Your task to perform on an android device: turn on bluetooth scan Image 0: 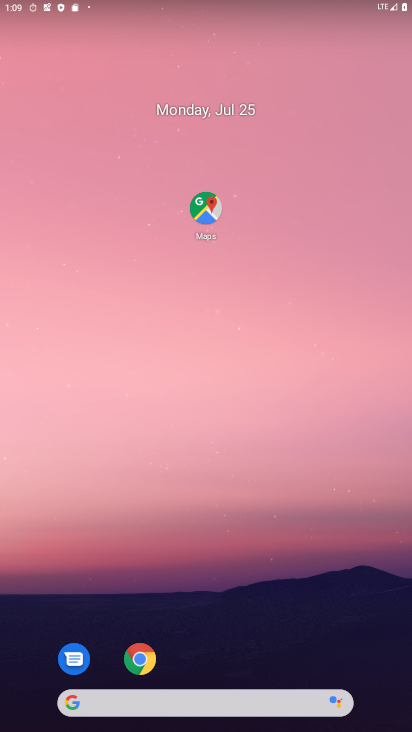
Step 0: drag from (45, 696) to (175, 157)
Your task to perform on an android device: turn on bluetooth scan Image 1: 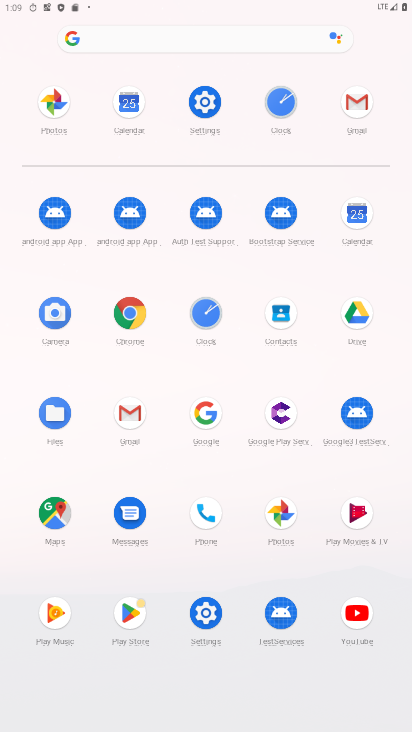
Step 1: click (190, 608)
Your task to perform on an android device: turn on bluetooth scan Image 2: 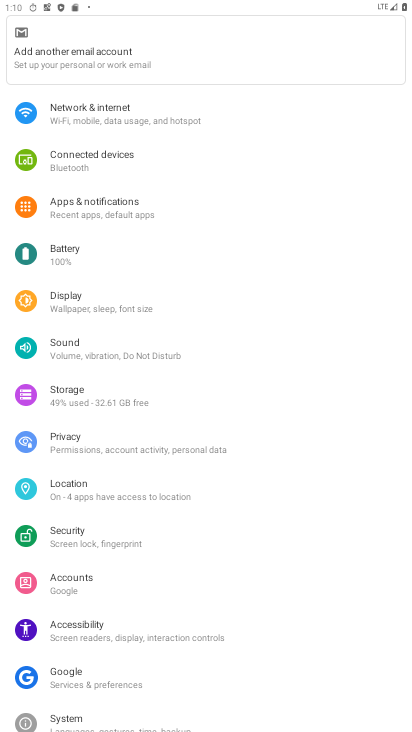
Step 2: click (101, 165)
Your task to perform on an android device: turn on bluetooth scan Image 3: 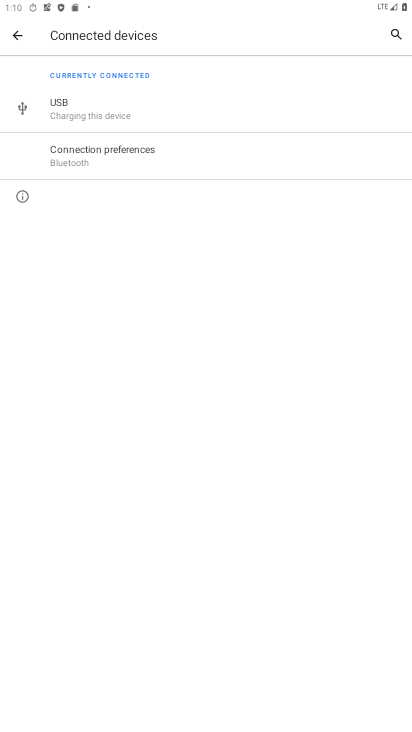
Step 3: click (87, 161)
Your task to perform on an android device: turn on bluetooth scan Image 4: 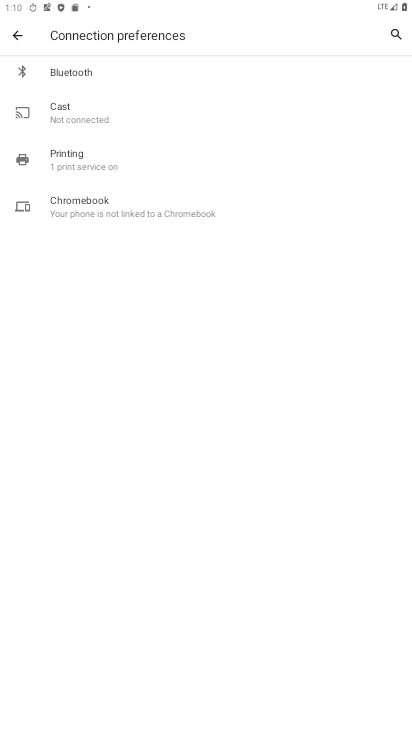
Step 4: click (88, 78)
Your task to perform on an android device: turn on bluetooth scan Image 5: 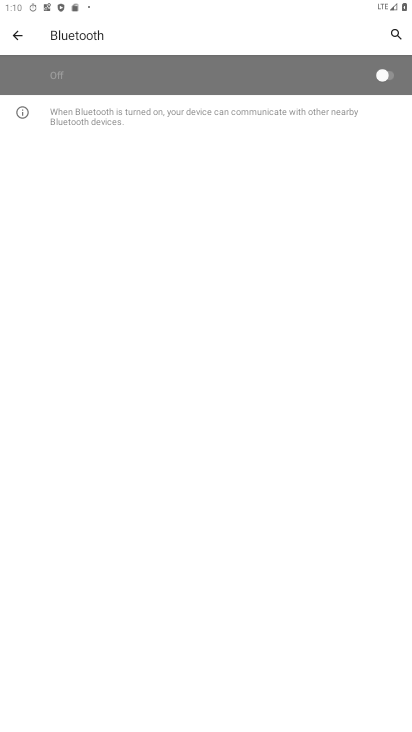
Step 5: task complete